Your task to perform on an android device: delete browsing data in the chrome app Image 0: 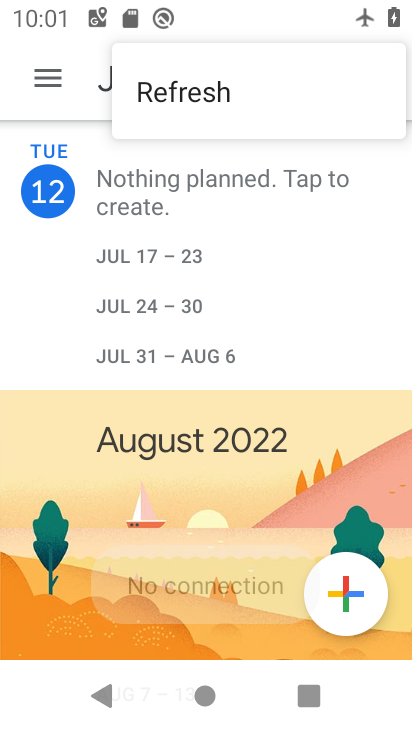
Step 0: press home button
Your task to perform on an android device: delete browsing data in the chrome app Image 1: 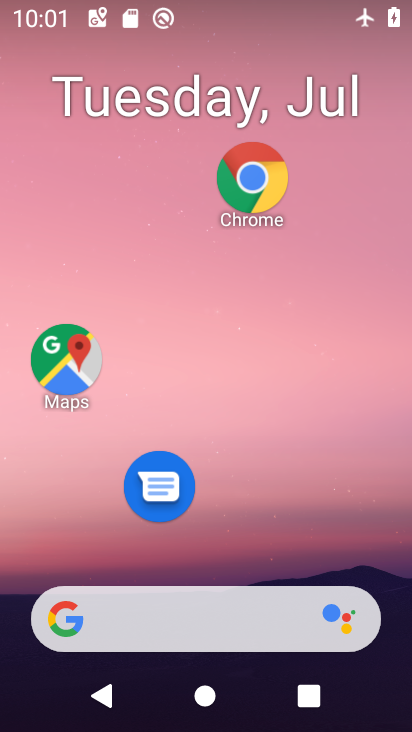
Step 1: drag from (219, 647) to (188, 225)
Your task to perform on an android device: delete browsing data in the chrome app Image 2: 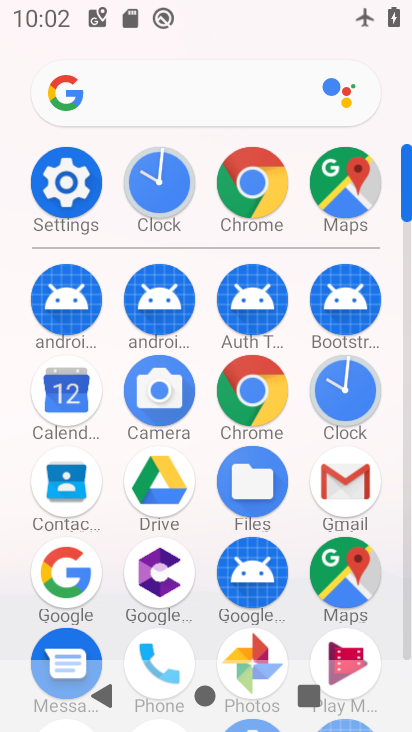
Step 2: click (259, 393)
Your task to perform on an android device: delete browsing data in the chrome app Image 3: 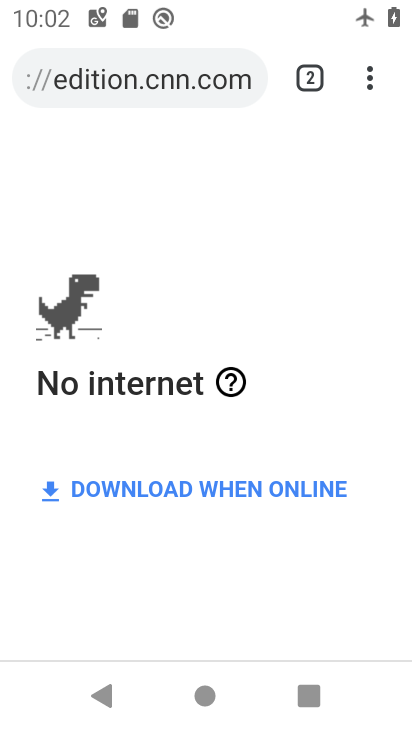
Step 3: click (371, 87)
Your task to perform on an android device: delete browsing data in the chrome app Image 4: 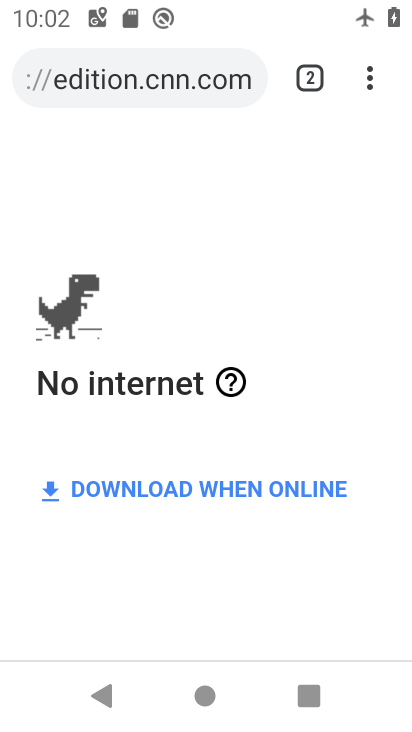
Step 4: click (379, 86)
Your task to perform on an android device: delete browsing data in the chrome app Image 5: 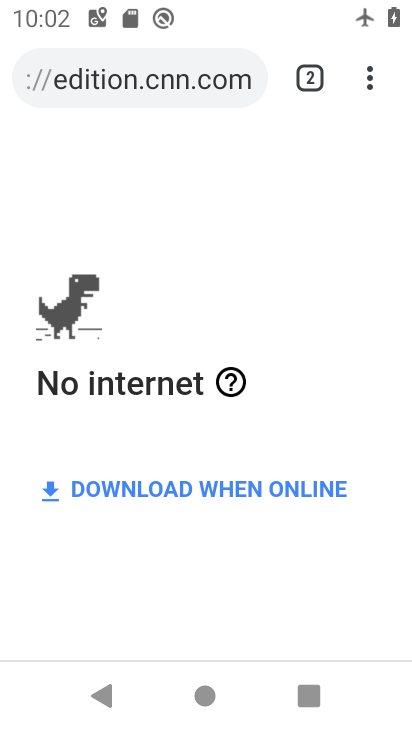
Step 5: click (362, 86)
Your task to perform on an android device: delete browsing data in the chrome app Image 6: 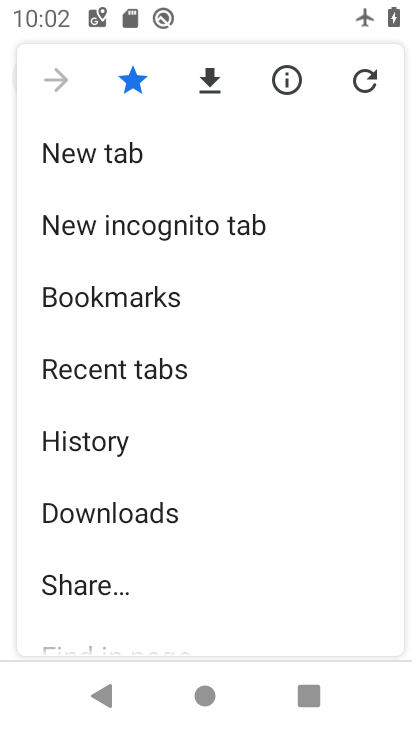
Step 6: drag from (175, 548) to (165, 75)
Your task to perform on an android device: delete browsing data in the chrome app Image 7: 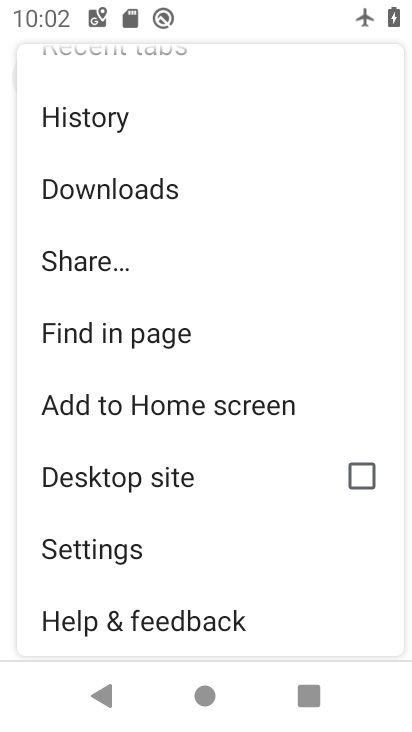
Step 7: click (130, 549)
Your task to perform on an android device: delete browsing data in the chrome app Image 8: 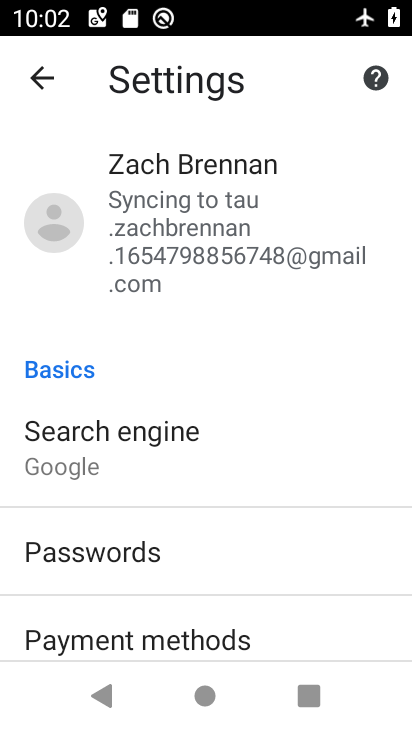
Step 8: drag from (132, 581) to (132, 337)
Your task to perform on an android device: delete browsing data in the chrome app Image 9: 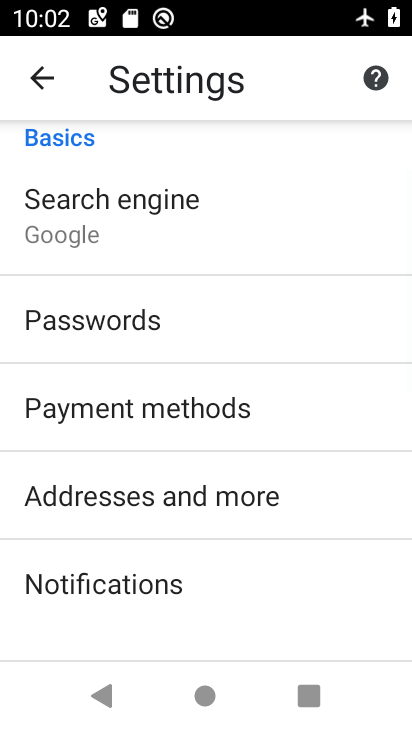
Step 9: click (52, 80)
Your task to perform on an android device: delete browsing data in the chrome app Image 10: 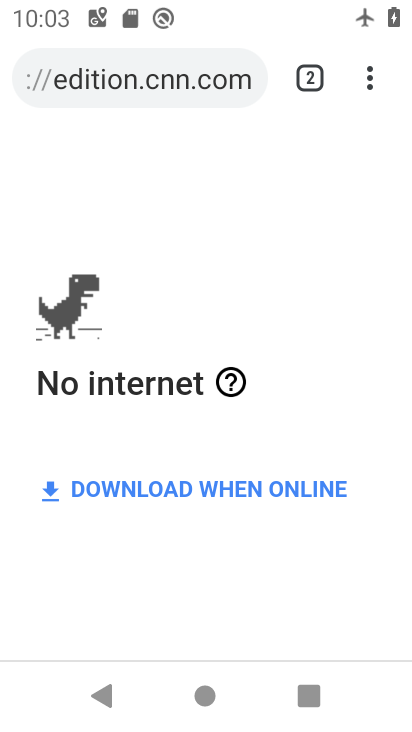
Step 10: click (366, 86)
Your task to perform on an android device: delete browsing data in the chrome app Image 11: 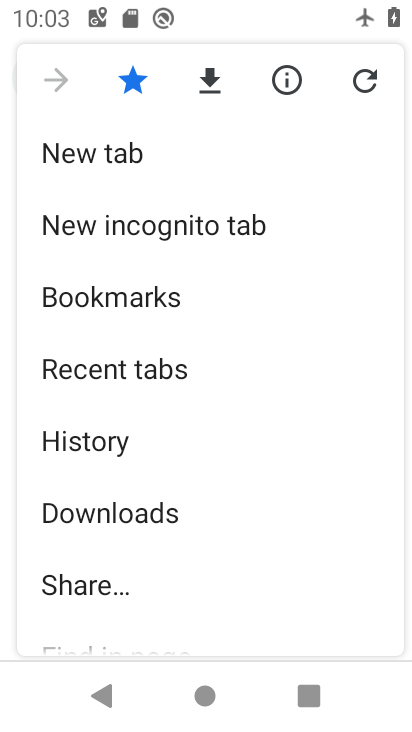
Step 11: click (88, 434)
Your task to perform on an android device: delete browsing data in the chrome app Image 12: 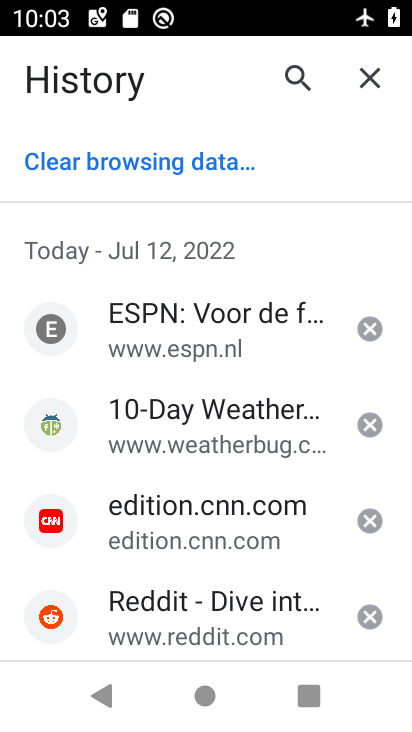
Step 12: click (191, 178)
Your task to perform on an android device: delete browsing data in the chrome app Image 13: 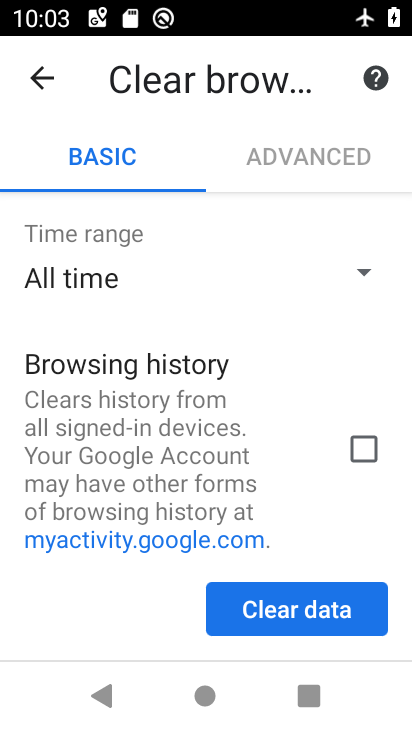
Step 13: click (361, 443)
Your task to perform on an android device: delete browsing data in the chrome app Image 14: 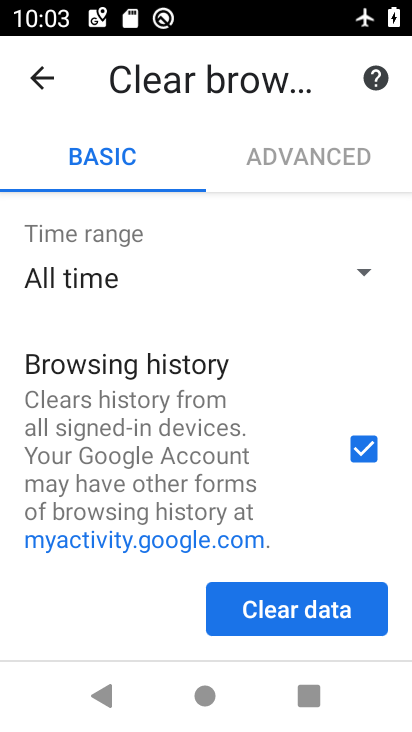
Step 14: click (319, 607)
Your task to perform on an android device: delete browsing data in the chrome app Image 15: 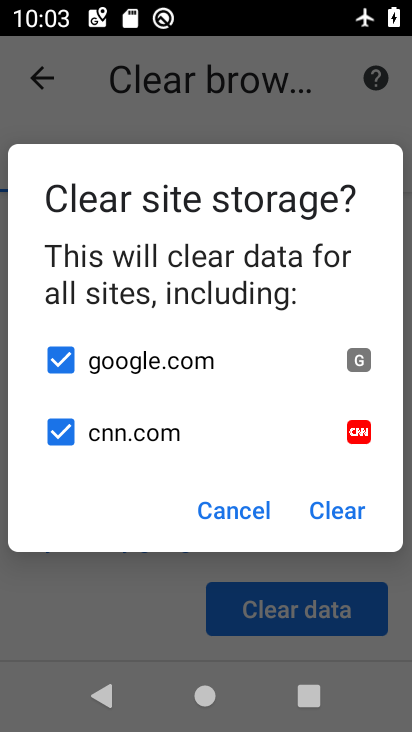
Step 15: click (332, 506)
Your task to perform on an android device: delete browsing data in the chrome app Image 16: 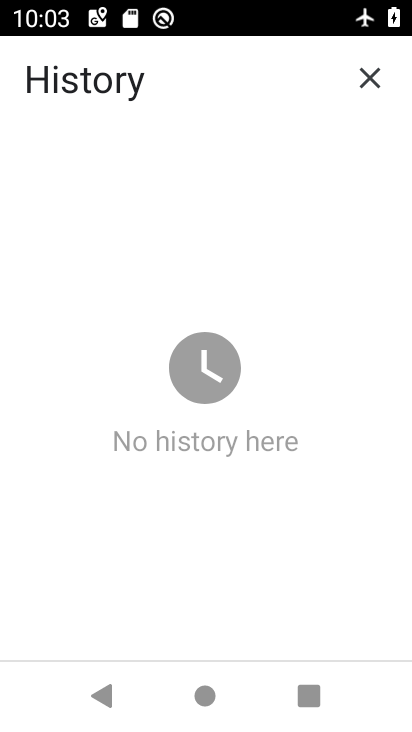
Step 16: task complete